Your task to perform on an android device: open chrome privacy settings Image 0: 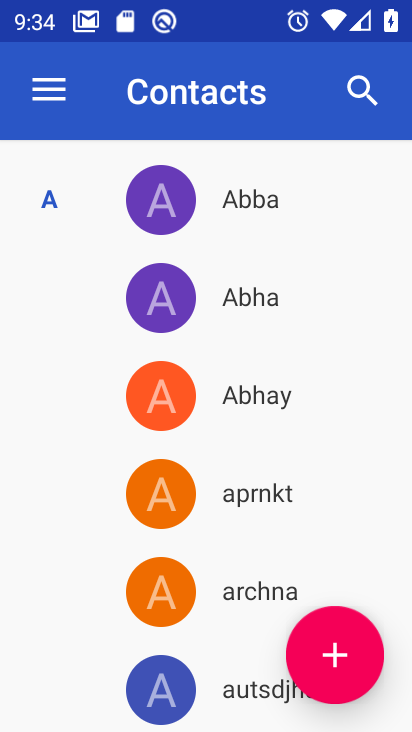
Step 0: press home button
Your task to perform on an android device: open chrome privacy settings Image 1: 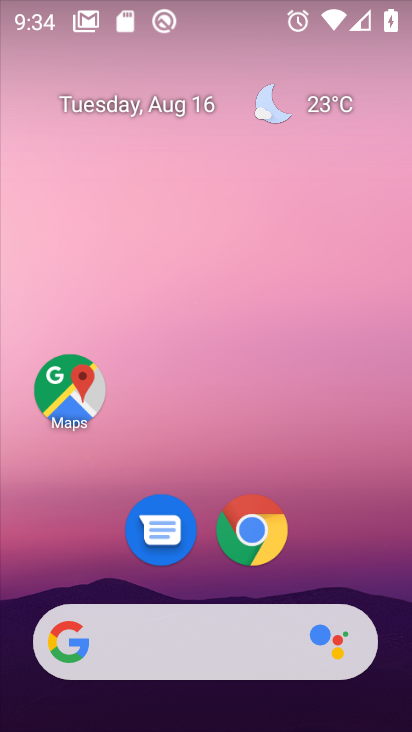
Step 1: drag from (315, 491) to (396, 67)
Your task to perform on an android device: open chrome privacy settings Image 2: 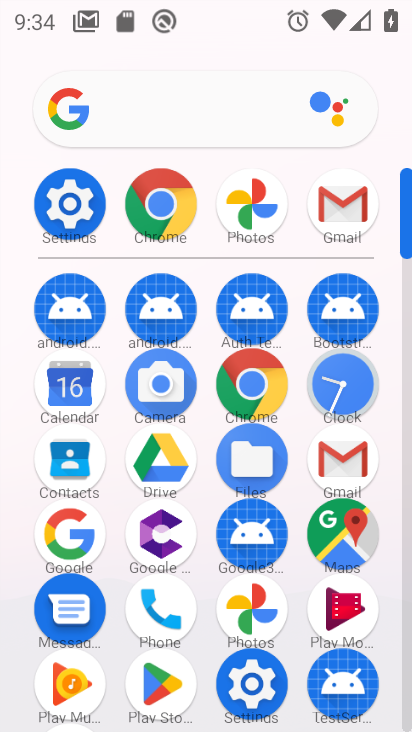
Step 2: click (252, 382)
Your task to perform on an android device: open chrome privacy settings Image 3: 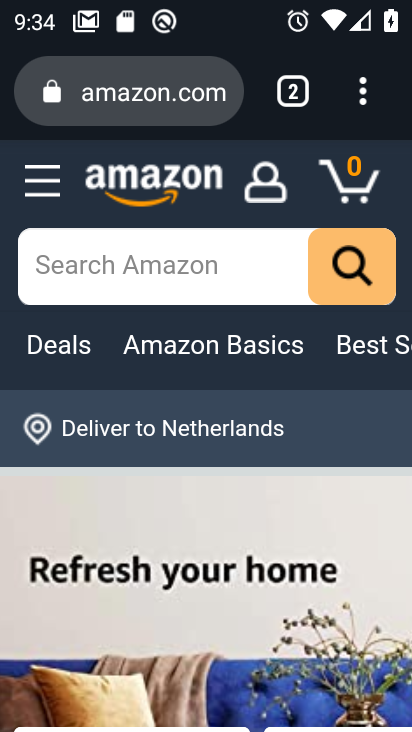
Step 3: drag from (367, 96) to (148, 558)
Your task to perform on an android device: open chrome privacy settings Image 4: 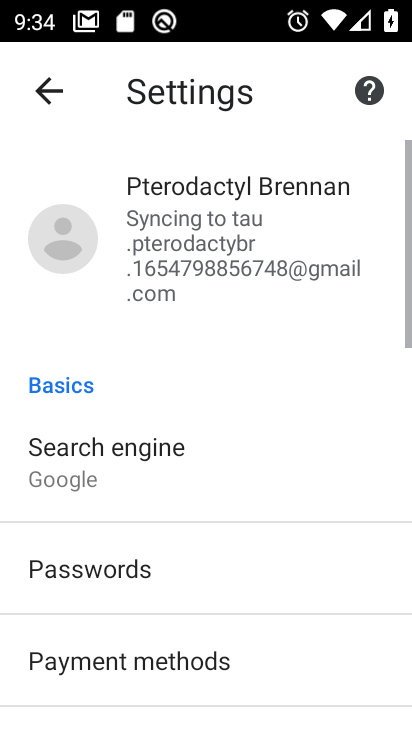
Step 4: drag from (308, 642) to (411, 78)
Your task to perform on an android device: open chrome privacy settings Image 5: 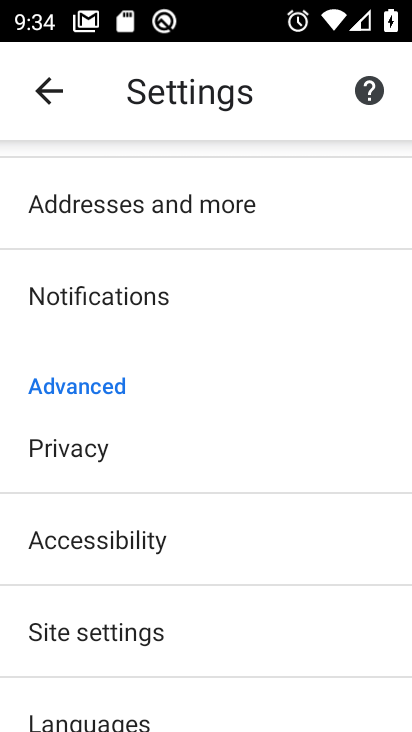
Step 5: click (86, 452)
Your task to perform on an android device: open chrome privacy settings Image 6: 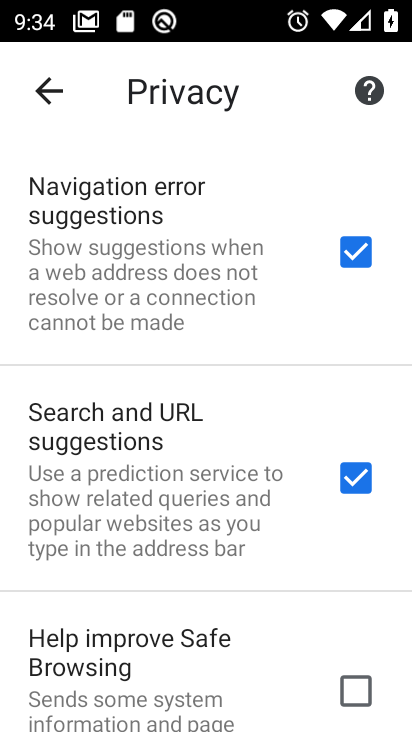
Step 6: task complete